Your task to perform on an android device: Open eBay Image 0: 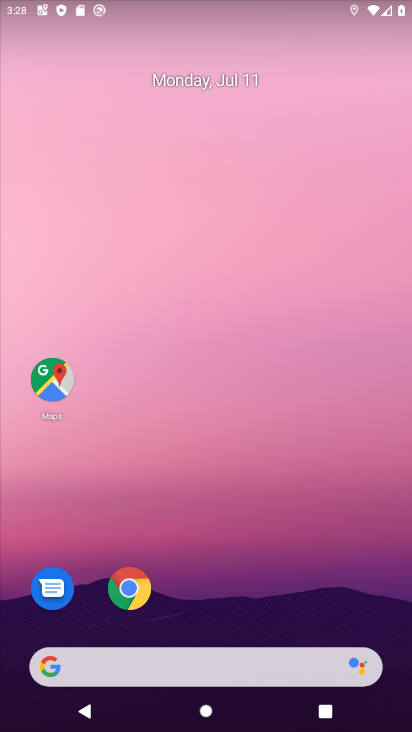
Step 0: click (137, 579)
Your task to perform on an android device: Open eBay Image 1: 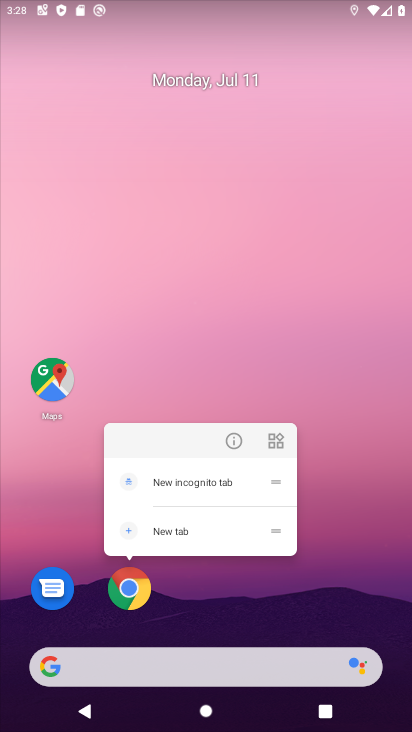
Step 1: click (137, 579)
Your task to perform on an android device: Open eBay Image 2: 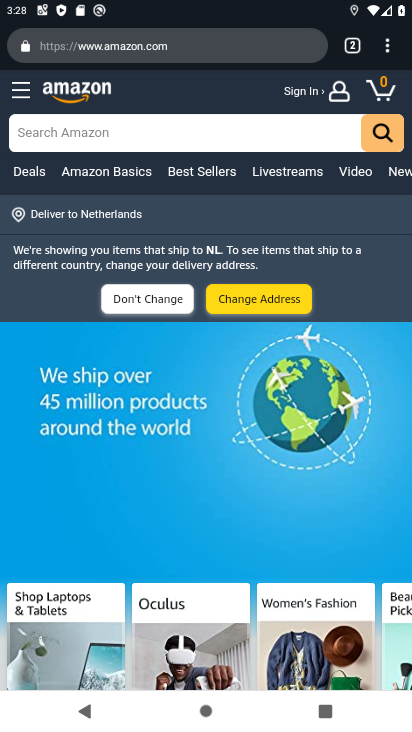
Step 2: click (357, 44)
Your task to perform on an android device: Open eBay Image 3: 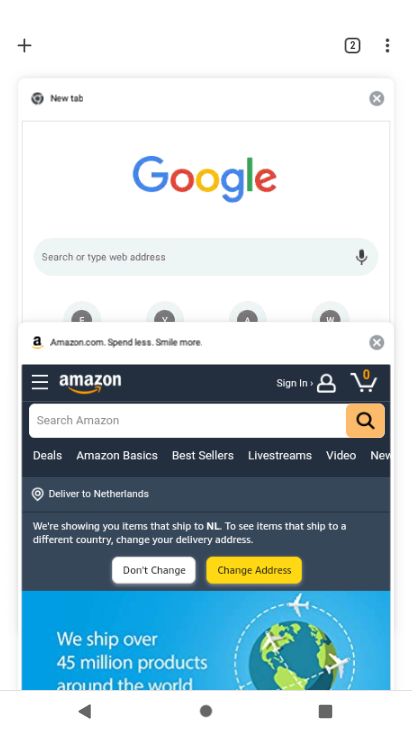
Step 3: click (376, 96)
Your task to perform on an android device: Open eBay Image 4: 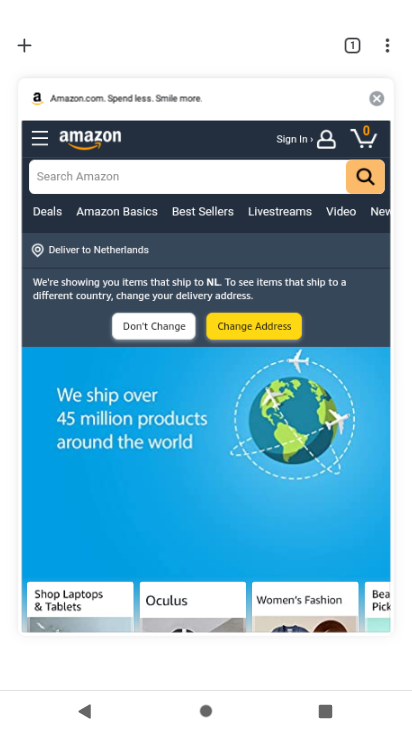
Step 4: click (376, 96)
Your task to perform on an android device: Open eBay Image 5: 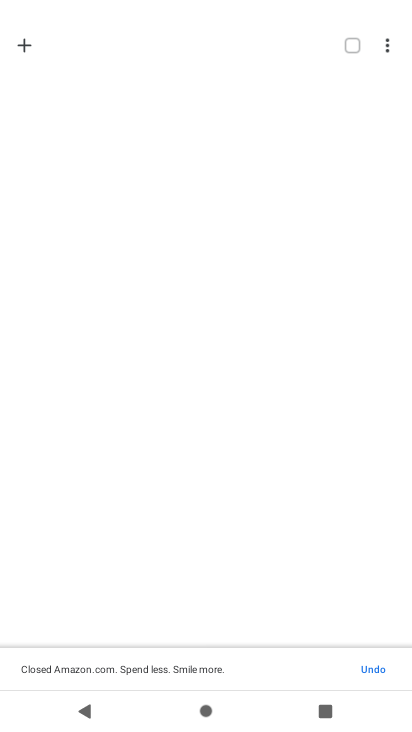
Step 5: click (31, 51)
Your task to perform on an android device: Open eBay Image 6: 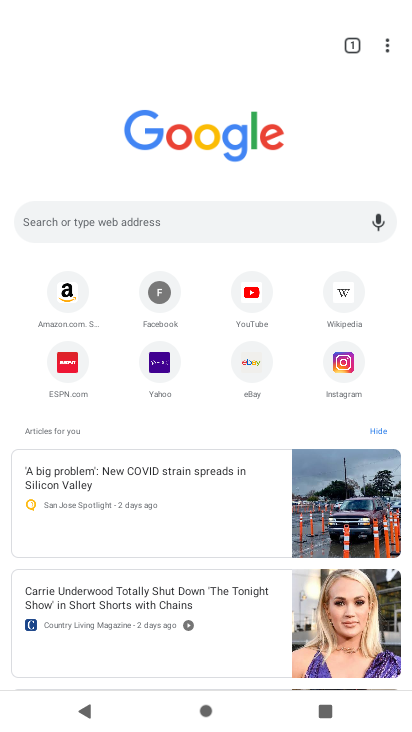
Step 6: click (253, 353)
Your task to perform on an android device: Open eBay Image 7: 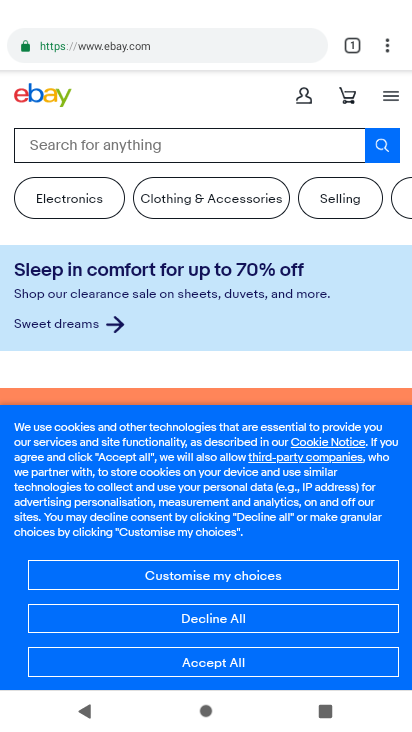
Step 7: task complete